Your task to perform on an android device: Go to location settings Image 0: 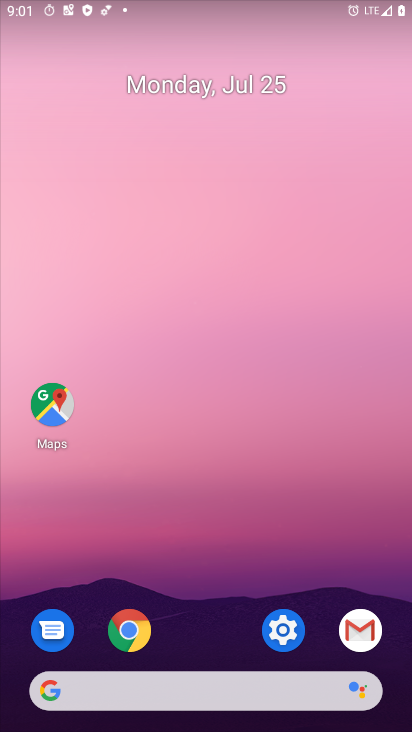
Step 0: click (270, 635)
Your task to perform on an android device: Go to location settings Image 1: 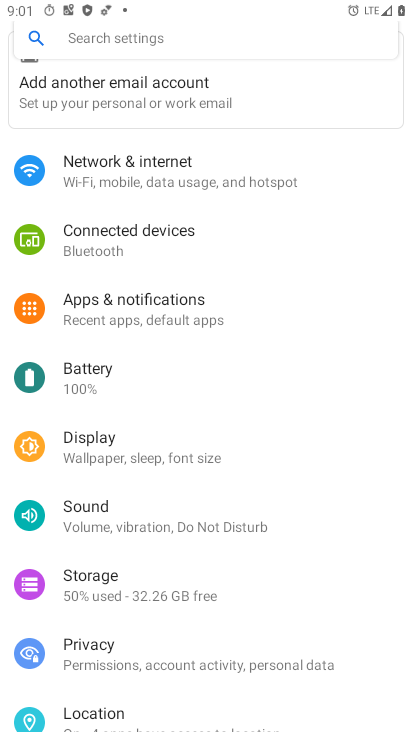
Step 1: click (109, 715)
Your task to perform on an android device: Go to location settings Image 2: 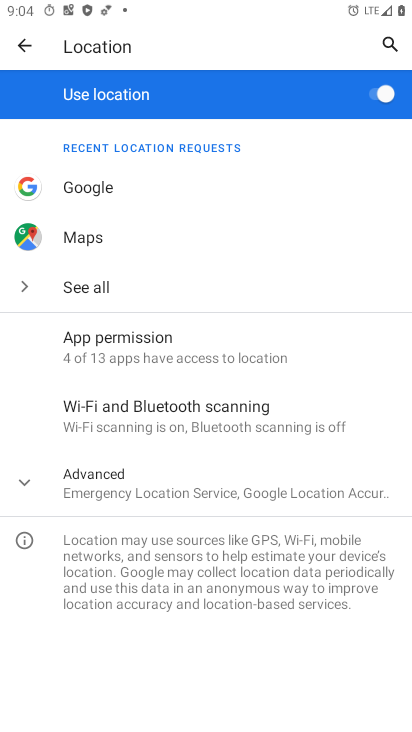
Step 2: task complete